Your task to perform on an android device: open app "Google Drive" Image 0: 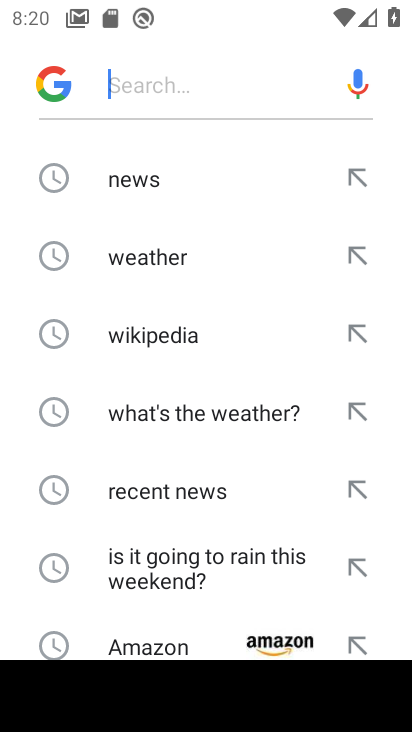
Step 0: press back button
Your task to perform on an android device: open app "Google Drive" Image 1: 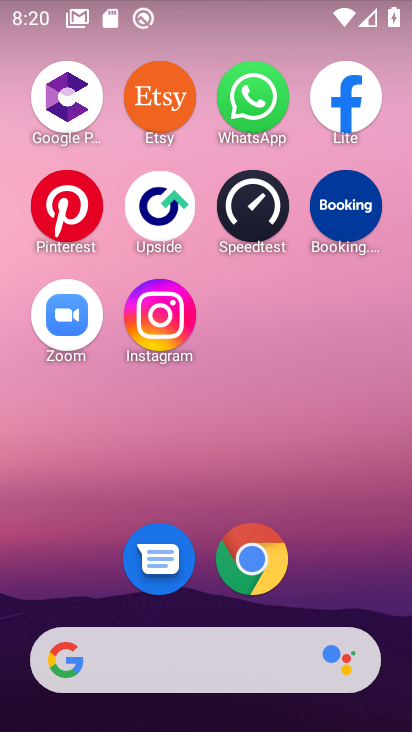
Step 1: drag from (214, 468) to (274, 95)
Your task to perform on an android device: open app "Google Drive" Image 2: 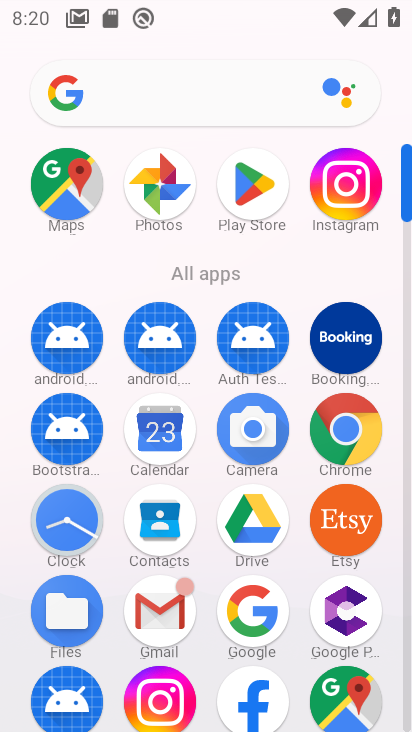
Step 2: click (250, 160)
Your task to perform on an android device: open app "Google Drive" Image 3: 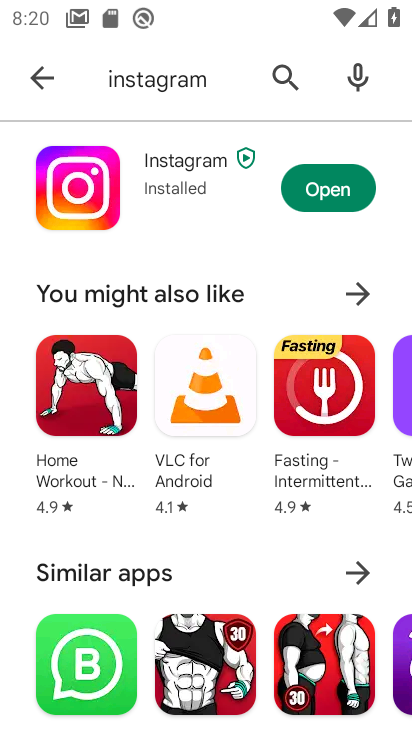
Step 3: click (269, 77)
Your task to perform on an android device: open app "Google Drive" Image 4: 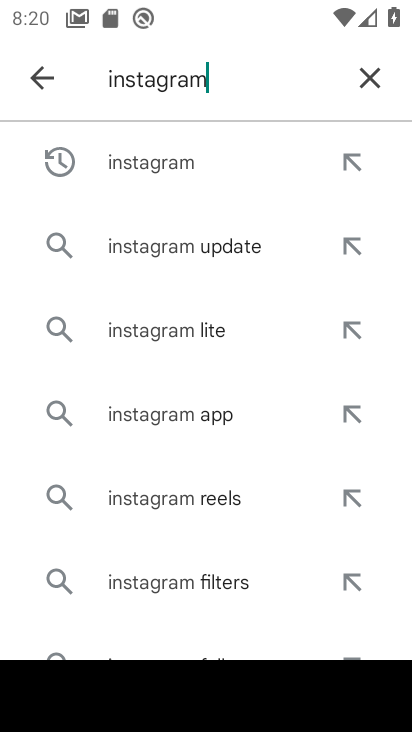
Step 4: drag from (359, 73) to (405, 73)
Your task to perform on an android device: open app "Google Drive" Image 5: 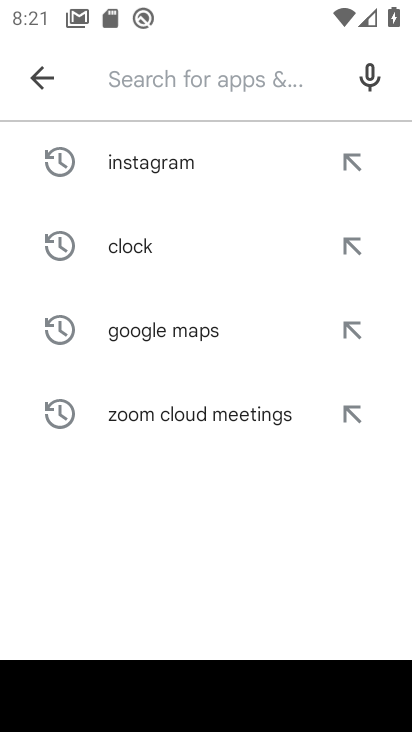
Step 5: type "Google Drive"
Your task to perform on an android device: open app "Google Drive" Image 6: 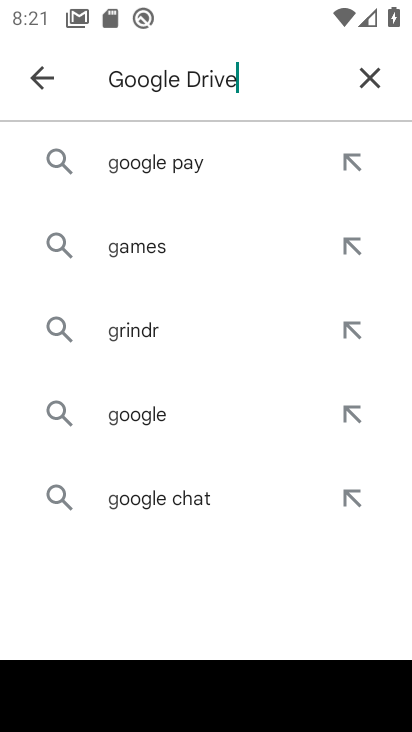
Step 6: type ""
Your task to perform on an android device: open app "Google Drive" Image 7: 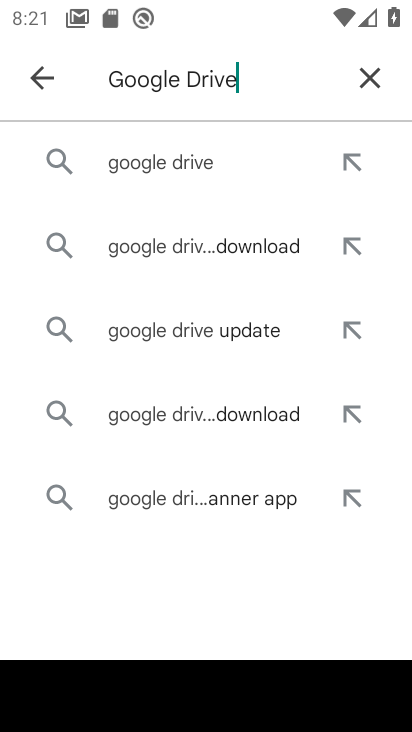
Step 7: click (234, 146)
Your task to perform on an android device: open app "Google Drive" Image 8: 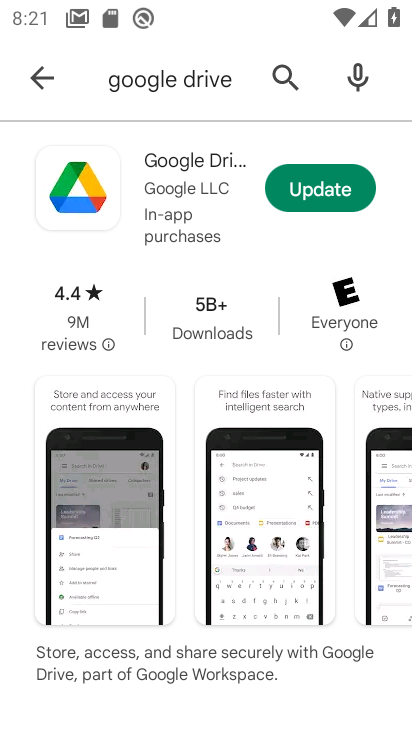
Step 8: click (183, 170)
Your task to perform on an android device: open app "Google Drive" Image 9: 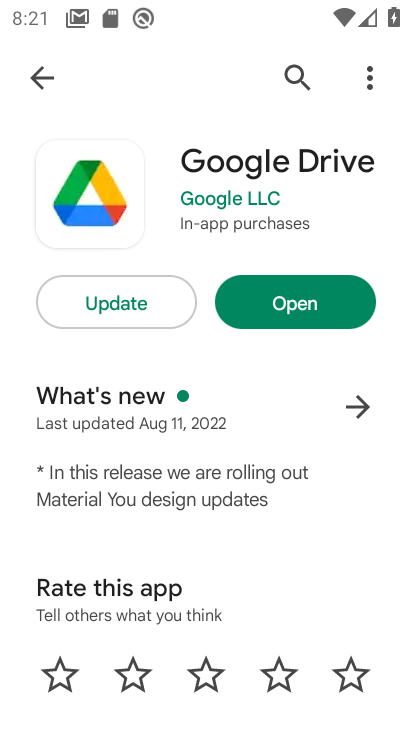
Step 9: click (287, 311)
Your task to perform on an android device: open app "Google Drive" Image 10: 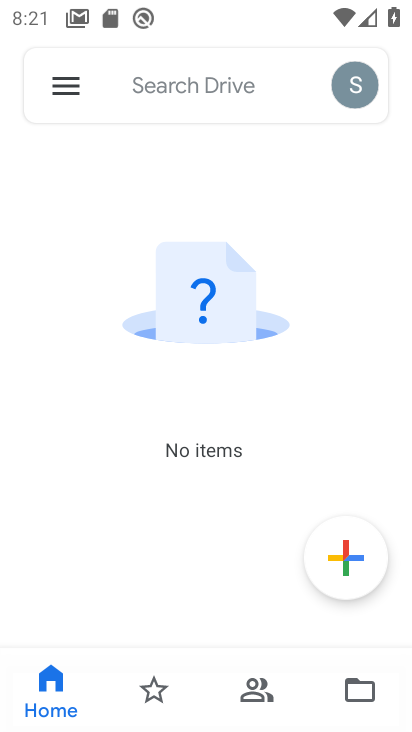
Step 10: task complete